Your task to perform on an android device: Open the stopwatch Image 0: 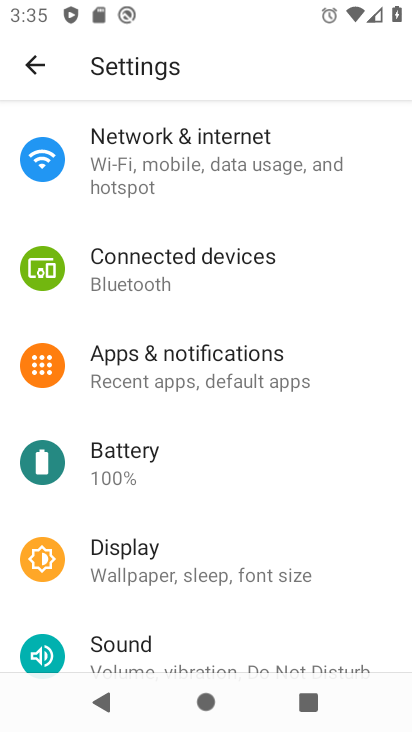
Step 0: press home button
Your task to perform on an android device: Open the stopwatch Image 1: 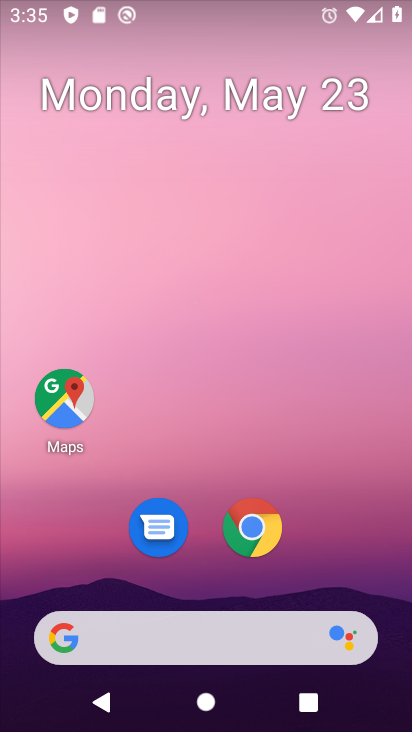
Step 1: drag from (324, 523) to (257, 133)
Your task to perform on an android device: Open the stopwatch Image 2: 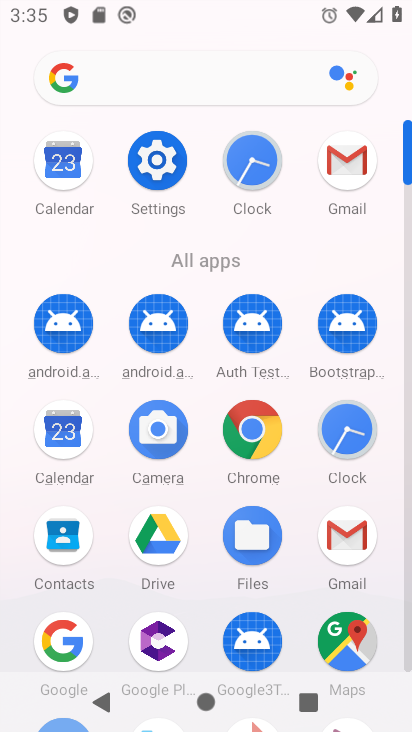
Step 2: click (255, 152)
Your task to perform on an android device: Open the stopwatch Image 3: 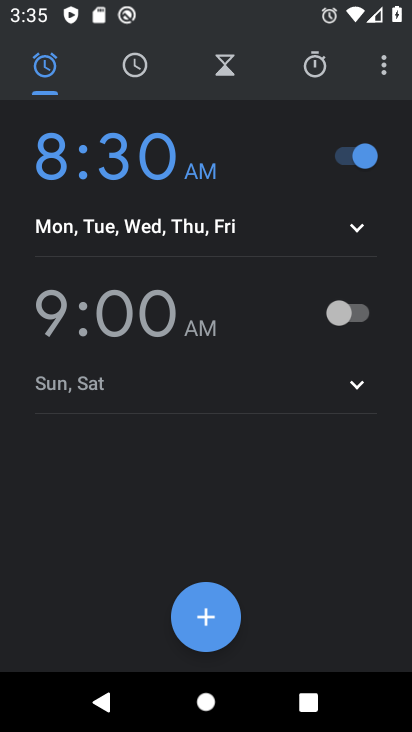
Step 3: click (220, 75)
Your task to perform on an android device: Open the stopwatch Image 4: 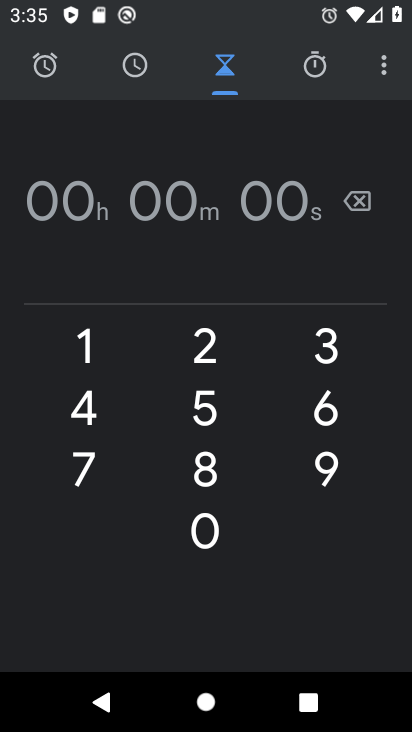
Step 4: click (324, 66)
Your task to perform on an android device: Open the stopwatch Image 5: 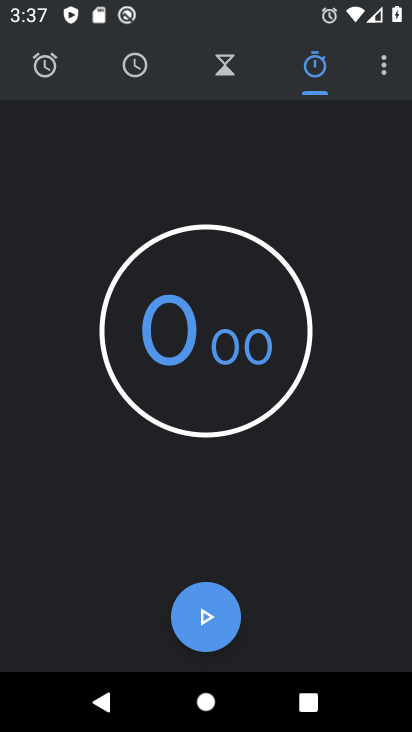
Step 5: task complete